Your task to perform on an android device: set default search engine in the chrome app Image 0: 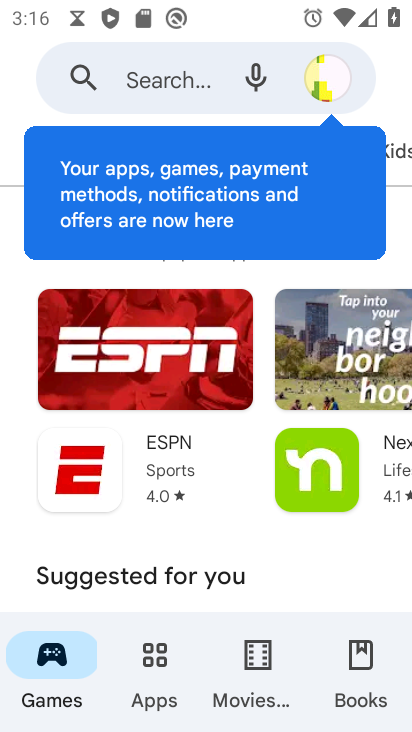
Step 0: press home button
Your task to perform on an android device: set default search engine in the chrome app Image 1: 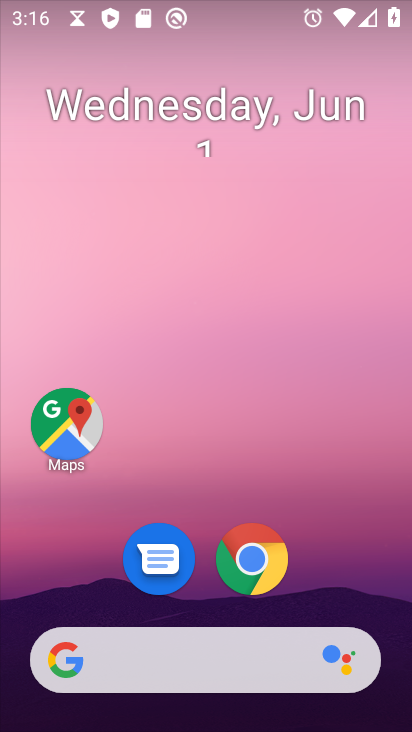
Step 1: click (249, 557)
Your task to perform on an android device: set default search engine in the chrome app Image 2: 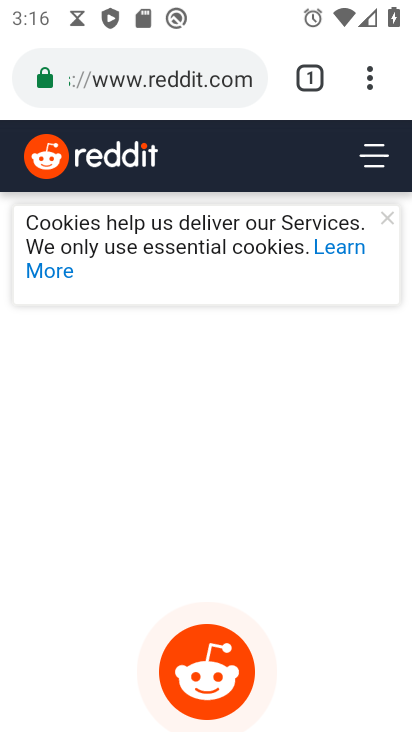
Step 2: click (387, 96)
Your task to perform on an android device: set default search engine in the chrome app Image 3: 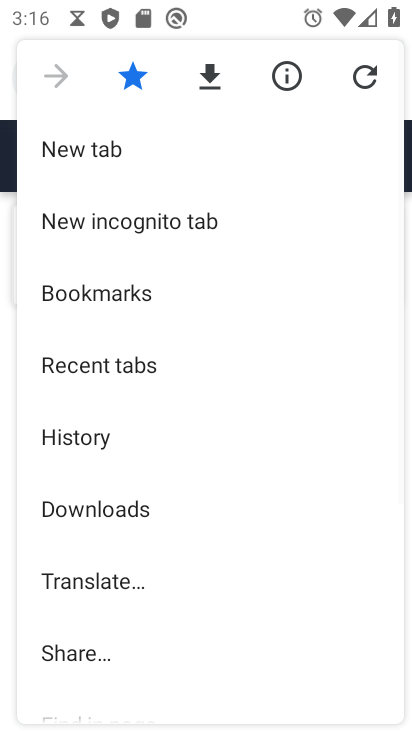
Step 3: drag from (114, 485) to (111, 189)
Your task to perform on an android device: set default search engine in the chrome app Image 4: 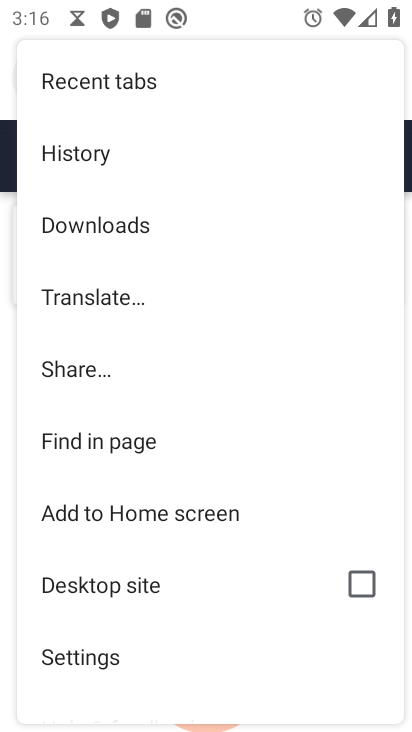
Step 4: click (115, 657)
Your task to perform on an android device: set default search engine in the chrome app Image 5: 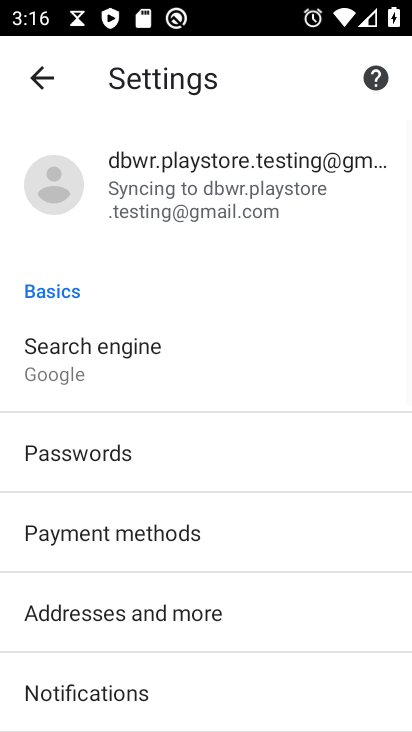
Step 5: click (77, 361)
Your task to perform on an android device: set default search engine in the chrome app Image 6: 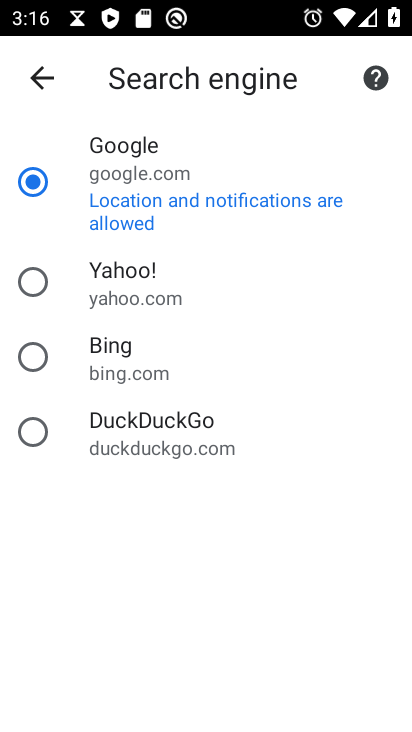
Step 6: click (145, 276)
Your task to perform on an android device: set default search engine in the chrome app Image 7: 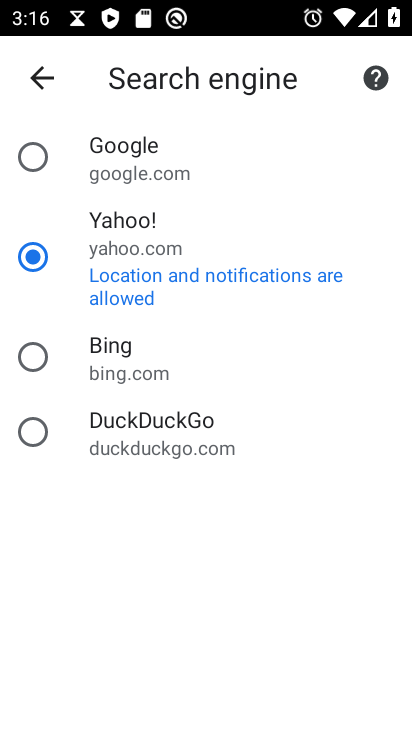
Step 7: task complete